Your task to perform on an android device: open the mobile data screen to see how much data has been used Image 0: 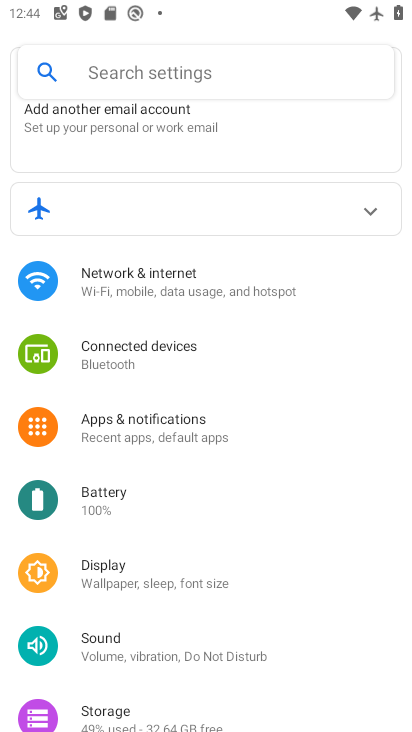
Step 0: press home button
Your task to perform on an android device: open the mobile data screen to see how much data has been used Image 1: 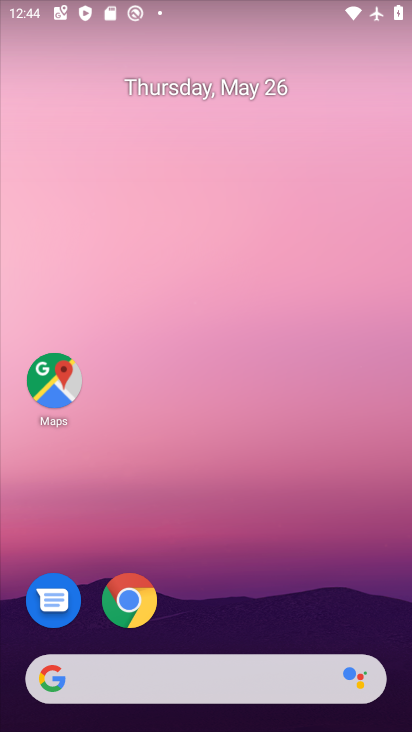
Step 1: drag from (394, 459) to (307, 504)
Your task to perform on an android device: open the mobile data screen to see how much data has been used Image 2: 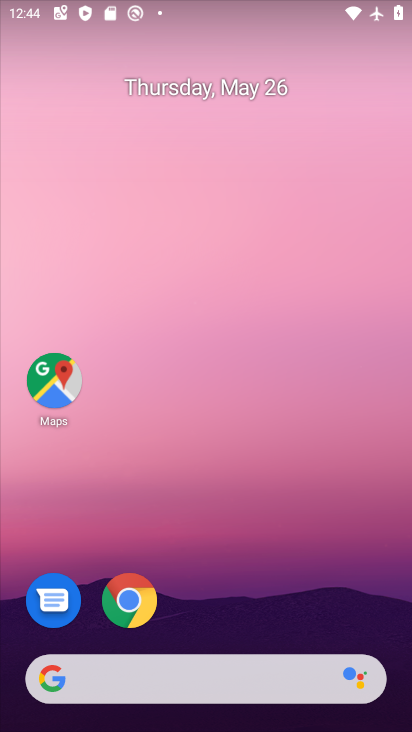
Step 2: drag from (272, 571) to (286, 9)
Your task to perform on an android device: open the mobile data screen to see how much data has been used Image 3: 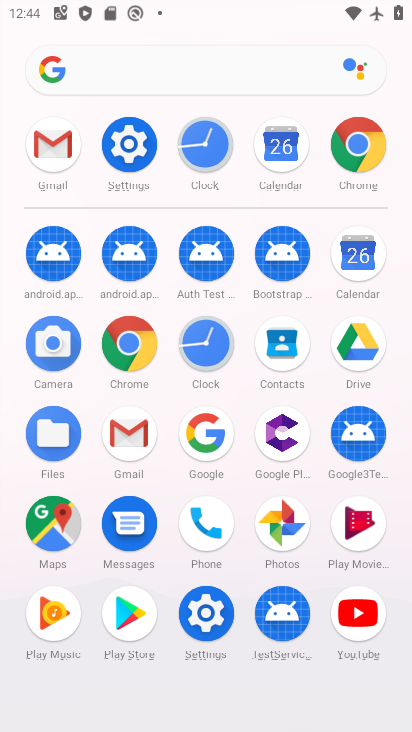
Step 3: click (118, 148)
Your task to perform on an android device: open the mobile data screen to see how much data has been used Image 4: 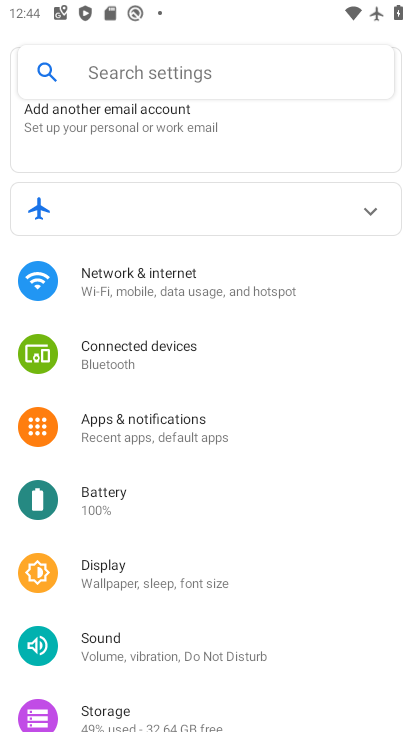
Step 4: click (136, 304)
Your task to perform on an android device: open the mobile data screen to see how much data has been used Image 5: 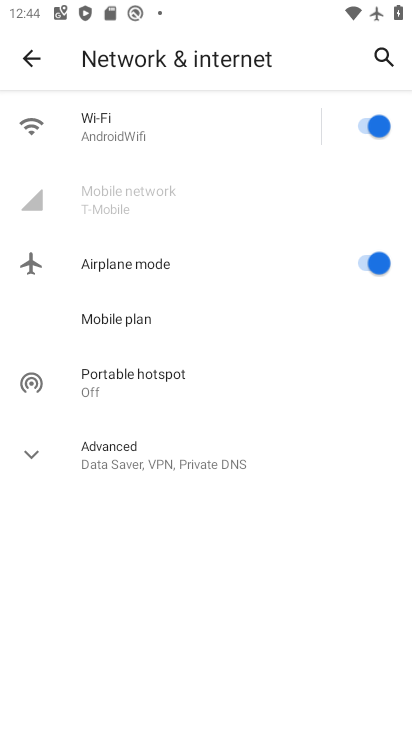
Step 5: click (155, 218)
Your task to perform on an android device: open the mobile data screen to see how much data has been used Image 6: 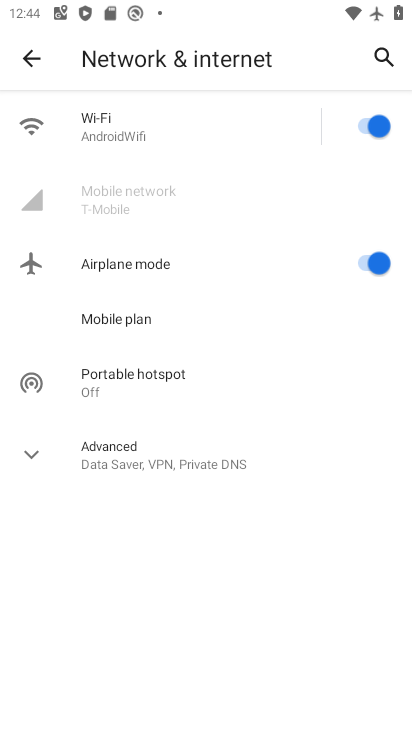
Step 6: click (155, 218)
Your task to perform on an android device: open the mobile data screen to see how much data has been used Image 7: 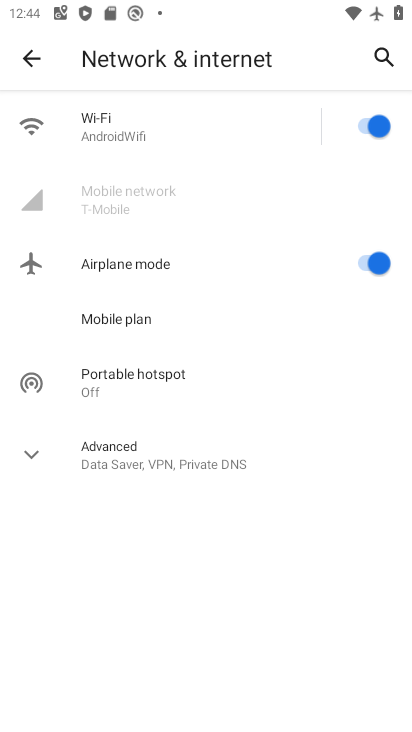
Step 7: click (164, 224)
Your task to perform on an android device: open the mobile data screen to see how much data has been used Image 8: 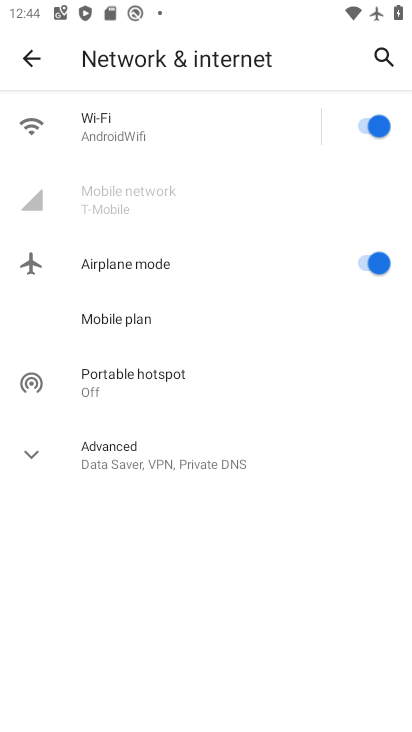
Step 8: click (171, 229)
Your task to perform on an android device: open the mobile data screen to see how much data has been used Image 9: 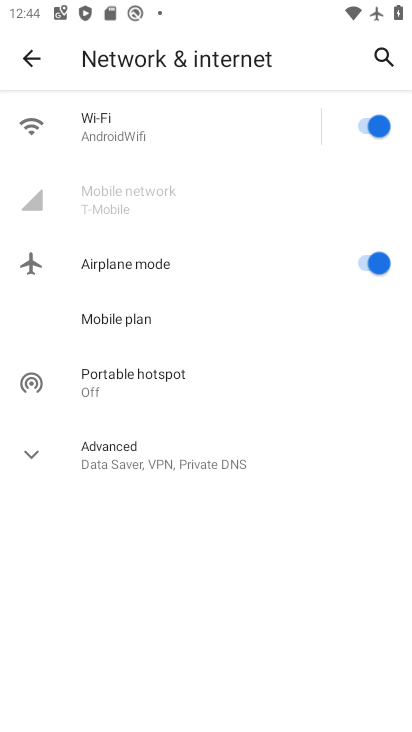
Step 9: click (171, 229)
Your task to perform on an android device: open the mobile data screen to see how much data has been used Image 10: 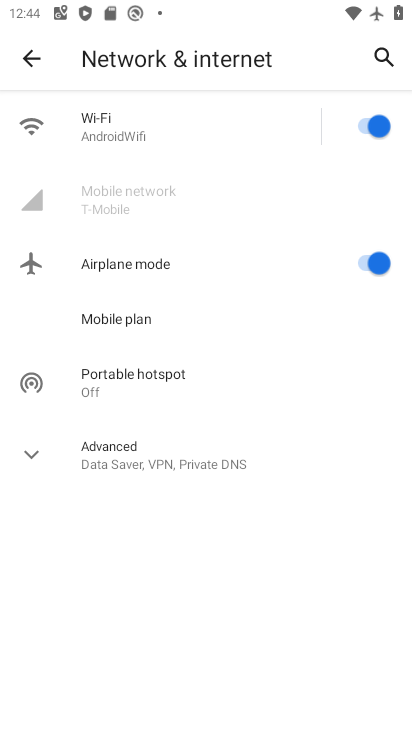
Step 10: click (171, 229)
Your task to perform on an android device: open the mobile data screen to see how much data has been used Image 11: 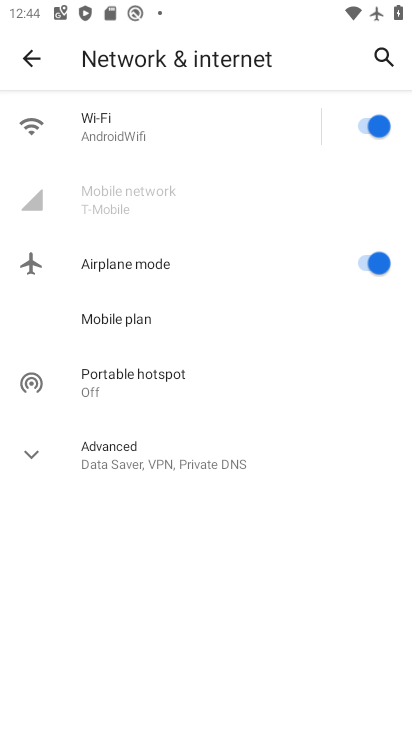
Step 11: click (171, 229)
Your task to perform on an android device: open the mobile data screen to see how much data has been used Image 12: 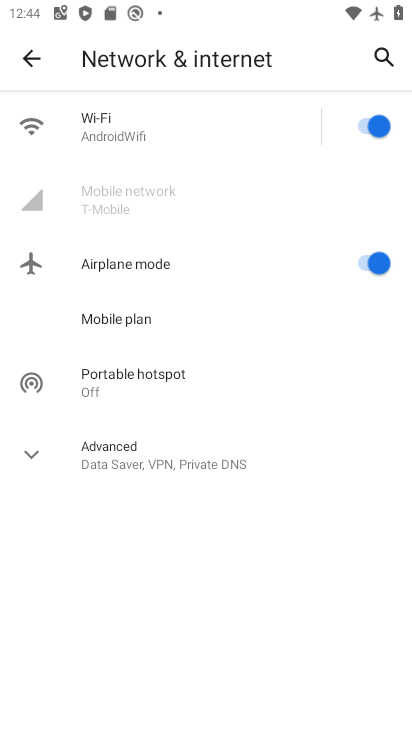
Step 12: task complete